Your task to perform on an android device: turn on the 12-hour format for clock Image 0: 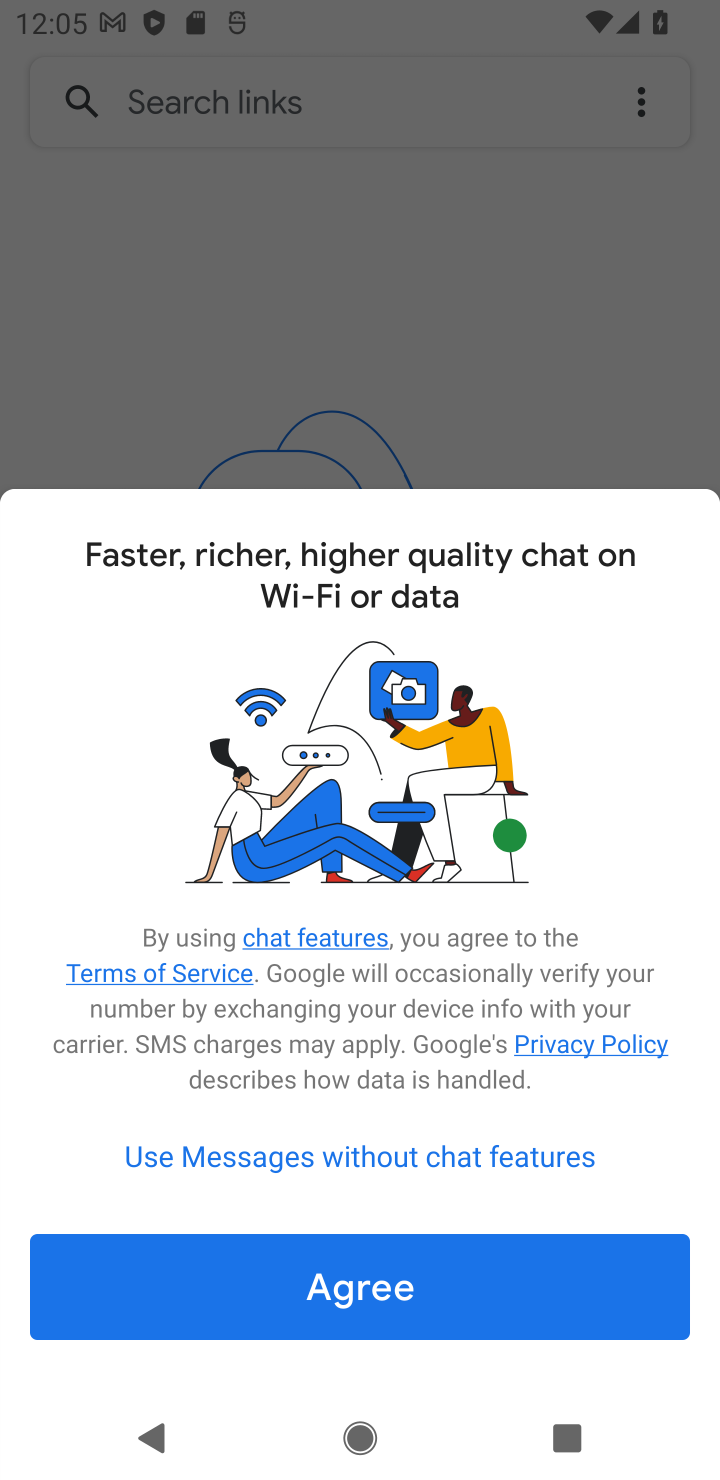
Step 0: press home button
Your task to perform on an android device: turn on the 12-hour format for clock Image 1: 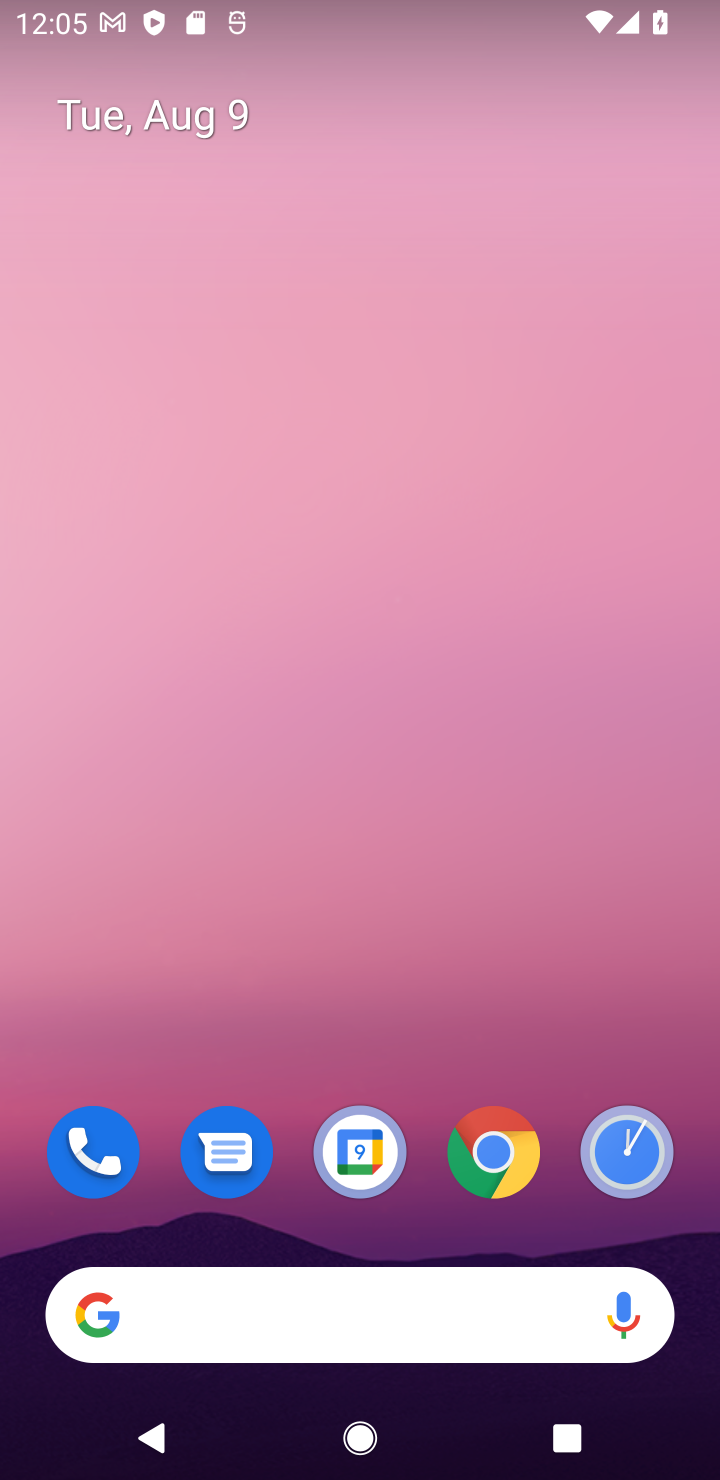
Step 1: click (645, 1175)
Your task to perform on an android device: turn on the 12-hour format for clock Image 2: 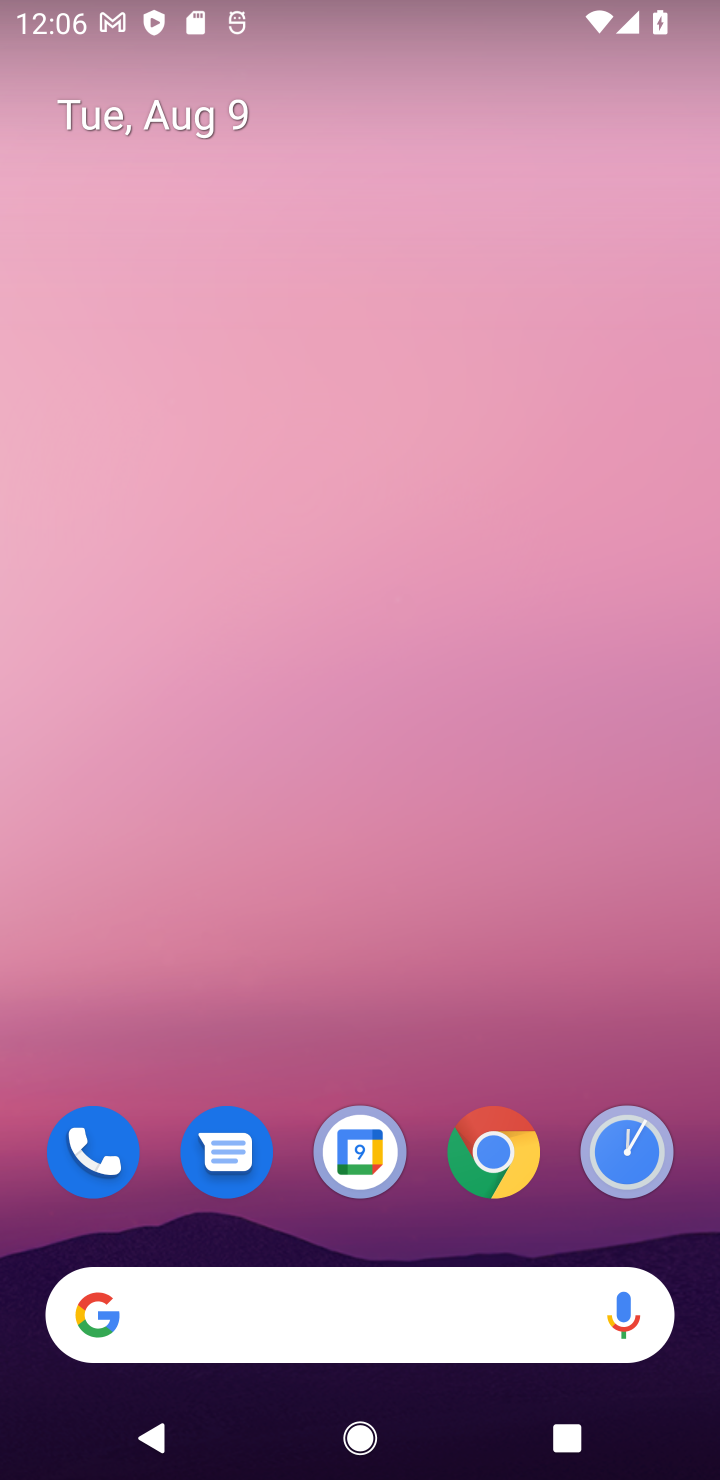
Step 2: click (645, 1152)
Your task to perform on an android device: turn on the 12-hour format for clock Image 3: 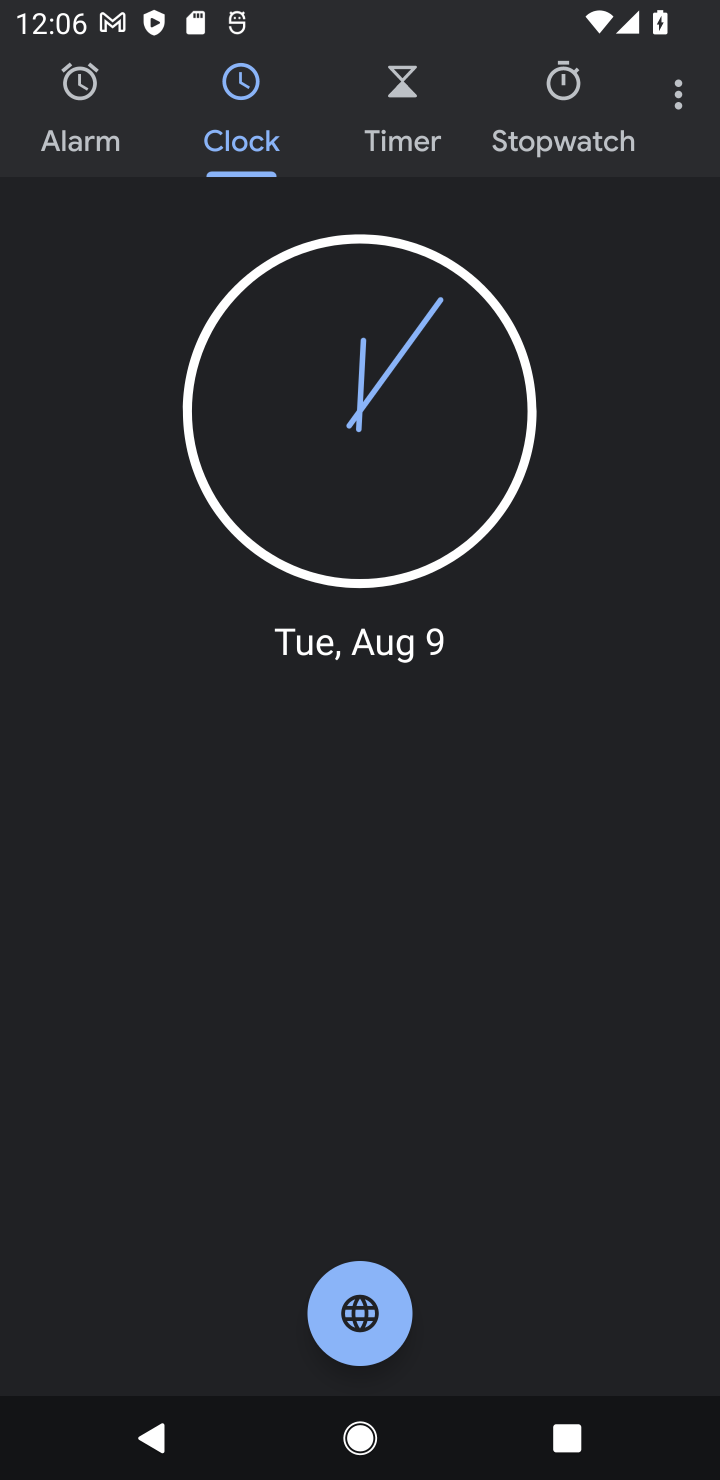
Step 3: click (674, 92)
Your task to perform on an android device: turn on the 12-hour format for clock Image 4: 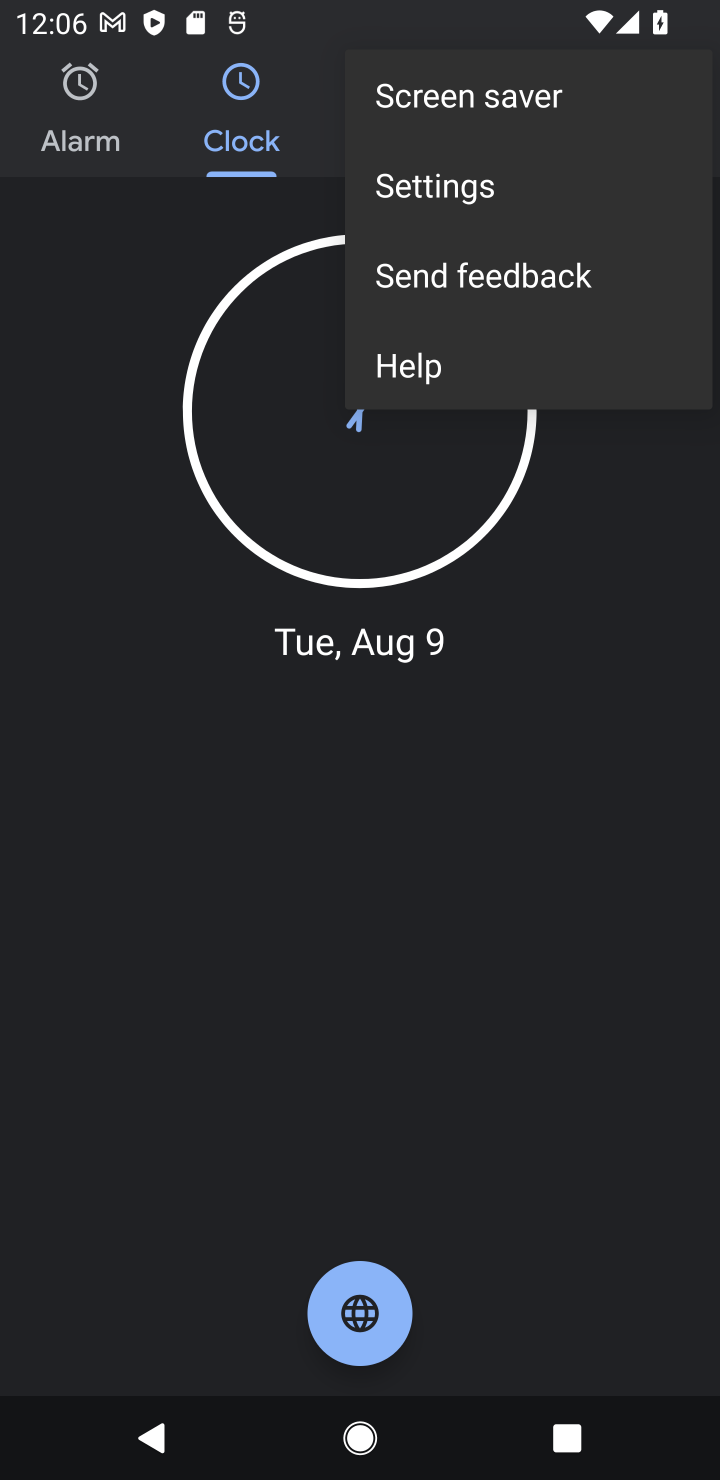
Step 4: click (489, 205)
Your task to perform on an android device: turn on the 12-hour format for clock Image 5: 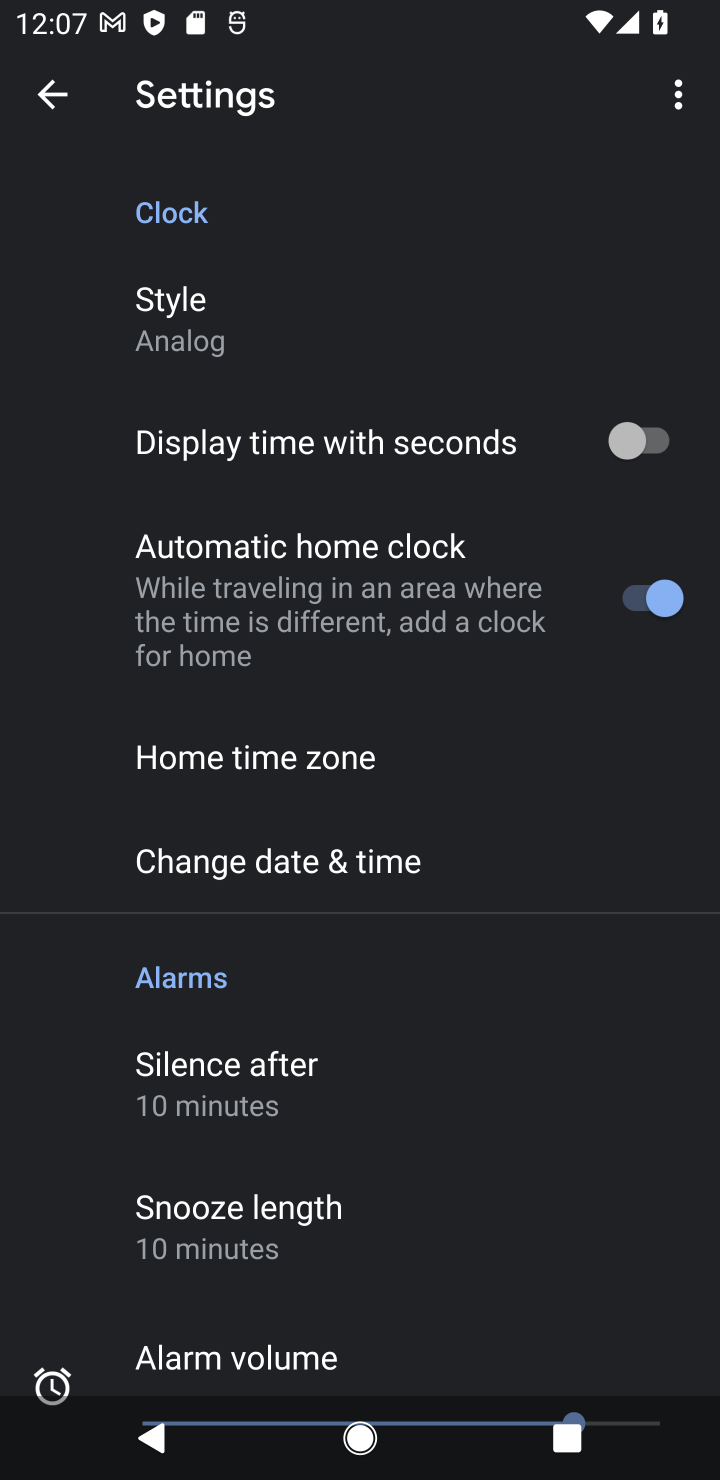
Step 5: click (455, 863)
Your task to perform on an android device: turn on the 12-hour format for clock Image 6: 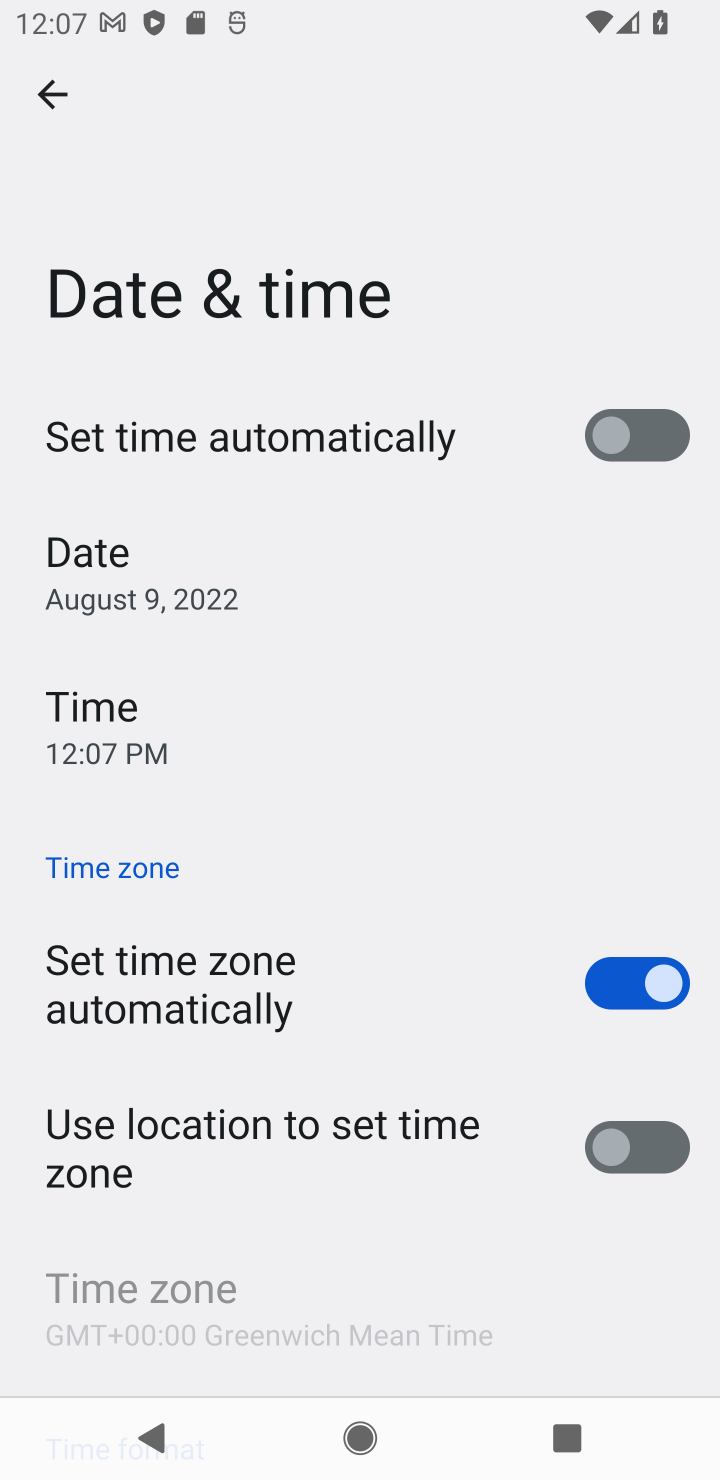
Step 6: task complete